Your task to perform on an android device: turn off data saver in the chrome app Image 0: 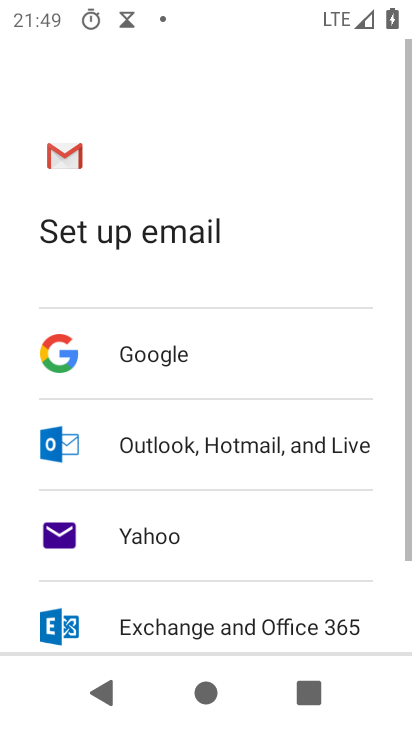
Step 0: press home button
Your task to perform on an android device: turn off data saver in the chrome app Image 1: 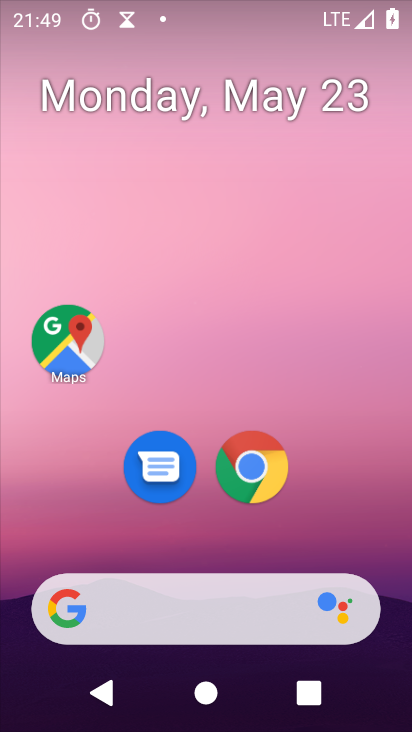
Step 1: click (261, 461)
Your task to perform on an android device: turn off data saver in the chrome app Image 2: 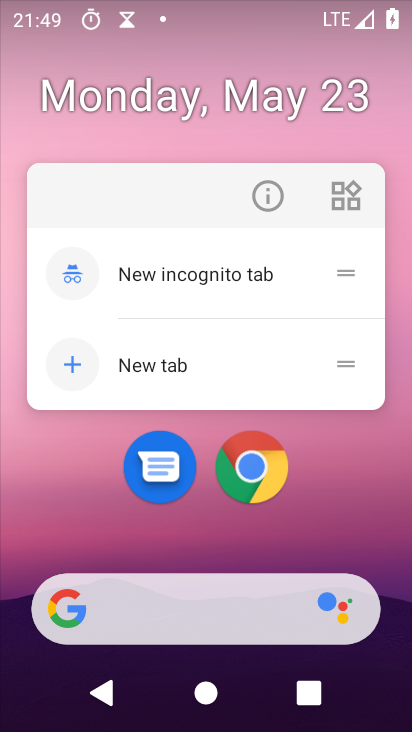
Step 2: click (261, 462)
Your task to perform on an android device: turn off data saver in the chrome app Image 3: 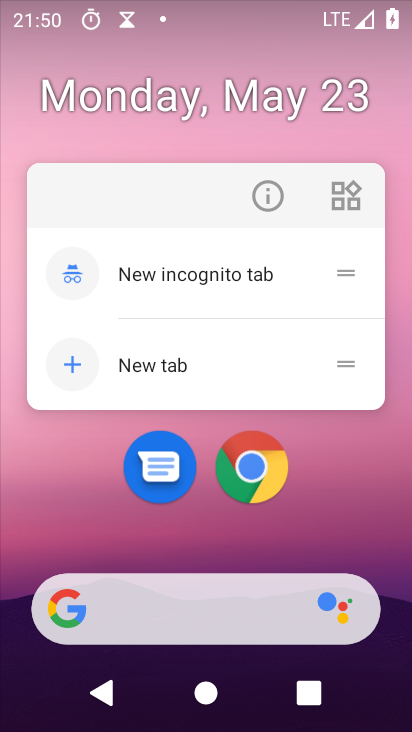
Step 3: click (265, 480)
Your task to perform on an android device: turn off data saver in the chrome app Image 4: 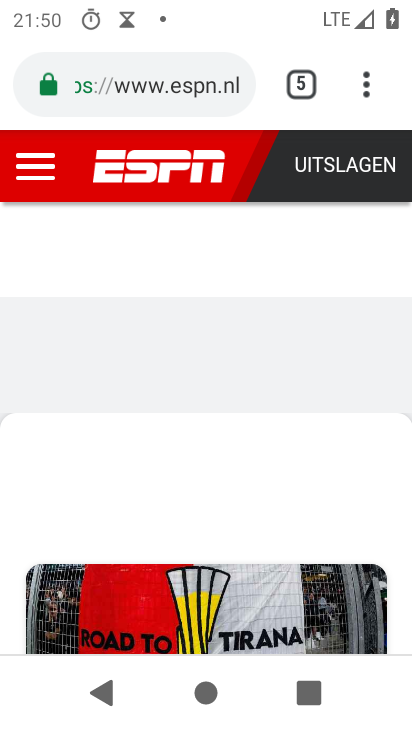
Step 4: click (371, 74)
Your task to perform on an android device: turn off data saver in the chrome app Image 5: 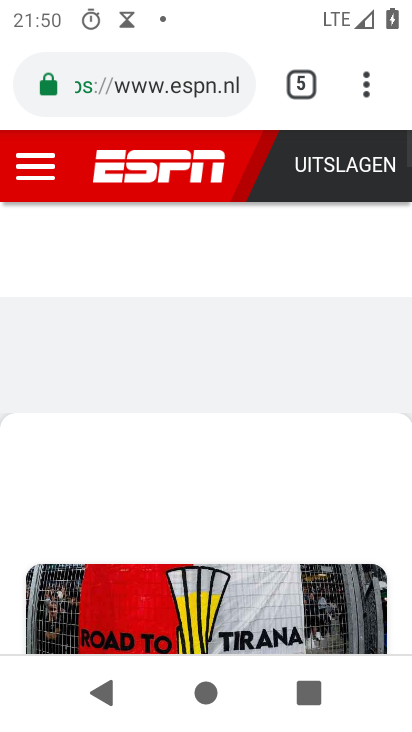
Step 5: click (357, 81)
Your task to perform on an android device: turn off data saver in the chrome app Image 6: 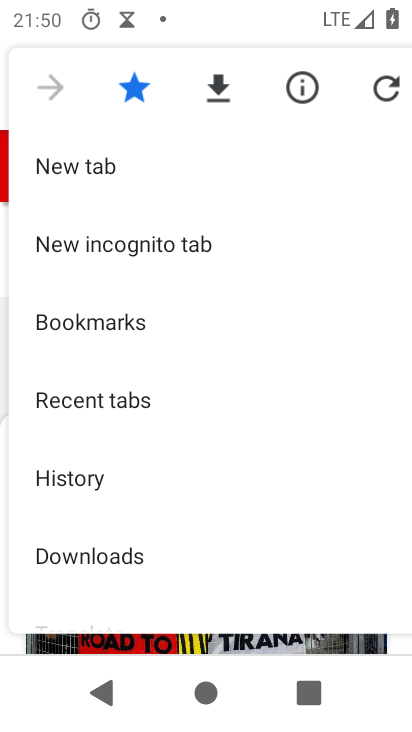
Step 6: drag from (197, 503) to (184, 91)
Your task to perform on an android device: turn off data saver in the chrome app Image 7: 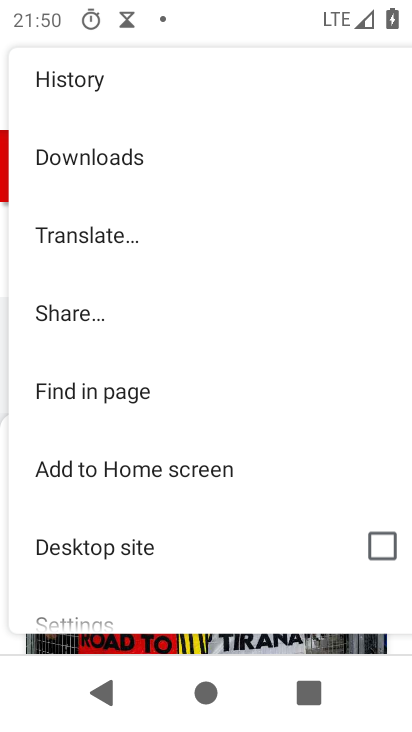
Step 7: drag from (209, 506) to (161, 94)
Your task to perform on an android device: turn off data saver in the chrome app Image 8: 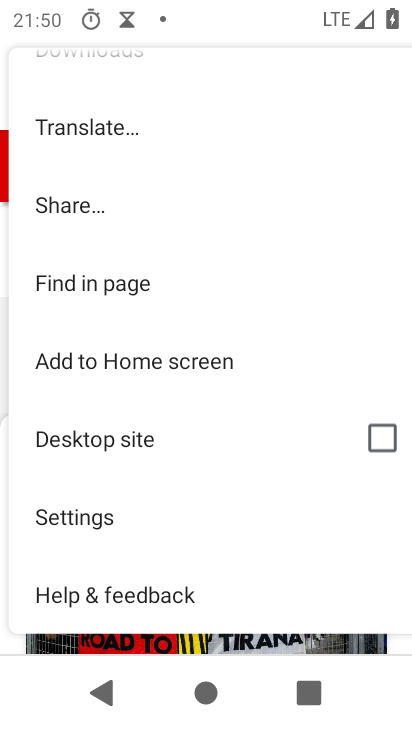
Step 8: click (117, 513)
Your task to perform on an android device: turn off data saver in the chrome app Image 9: 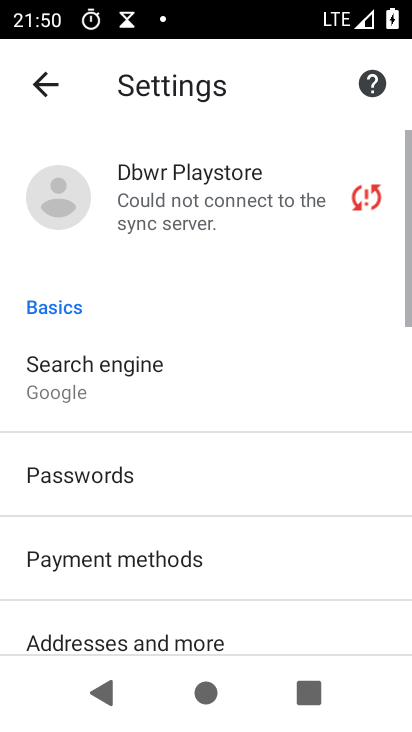
Step 9: drag from (210, 581) to (165, 109)
Your task to perform on an android device: turn off data saver in the chrome app Image 10: 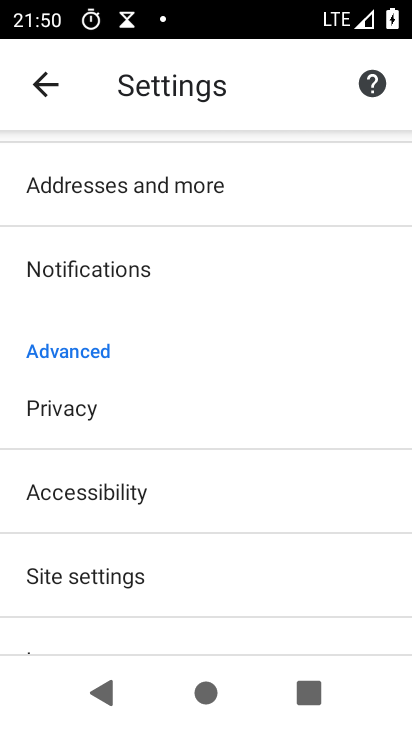
Step 10: drag from (140, 569) to (112, 248)
Your task to perform on an android device: turn off data saver in the chrome app Image 11: 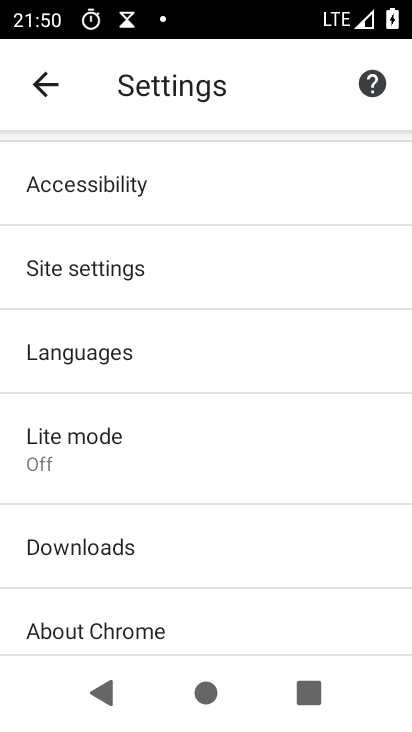
Step 11: click (119, 458)
Your task to perform on an android device: turn off data saver in the chrome app Image 12: 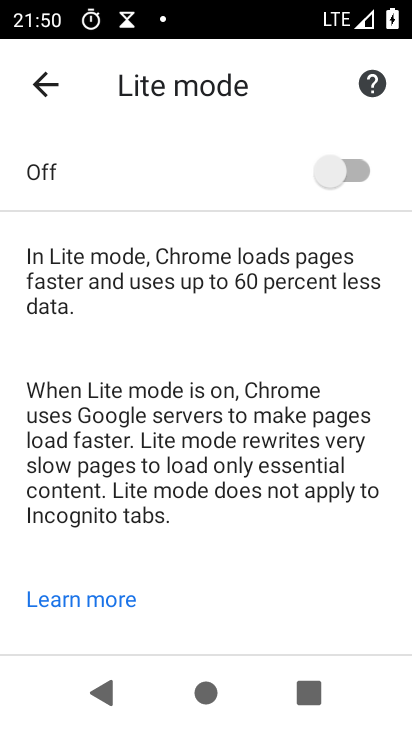
Step 12: task complete